Your task to perform on an android device: Open Chrome and go to settings Image 0: 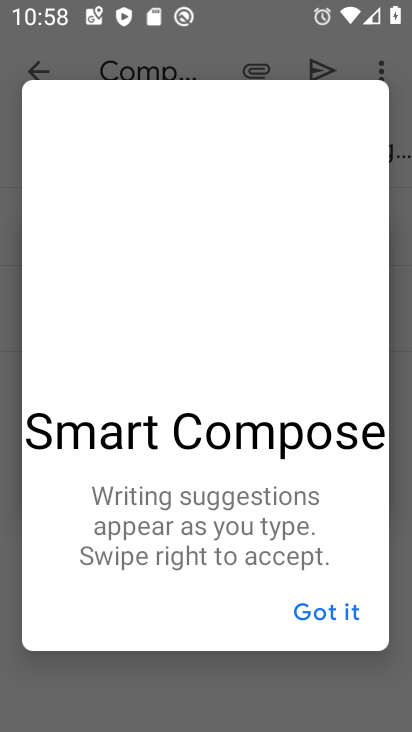
Step 0: press home button
Your task to perform on an android device: Open Chrome and go to settings Image 1: 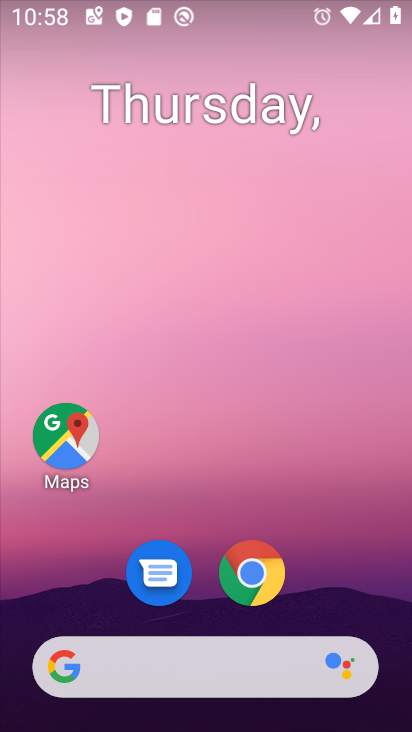
Step 1: click (245, 587)
Your task to perform on an android device: Open Chrome and go to settings Image 2: 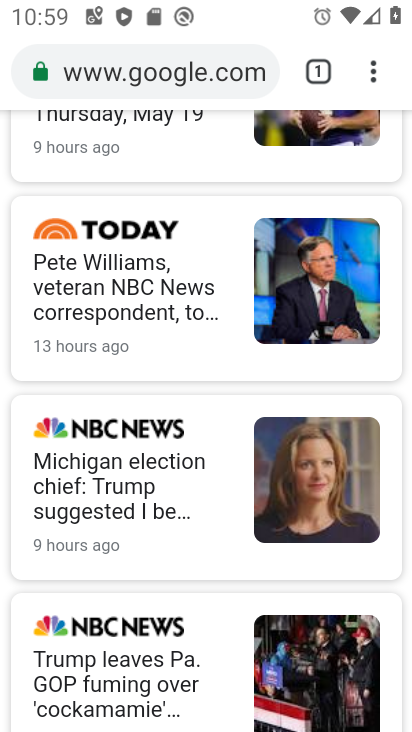
Step 2: click (373, 61)
Your task to perform on an android device: Open Chrome and go to settings Image 3: 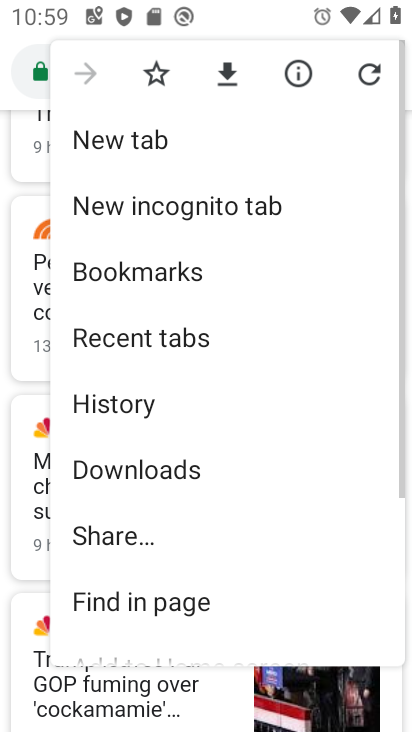
Step 3: drag from (154, 566) to (195, 128)
Your task to perform on an android device: Open Chrome and go to settings Image 4: 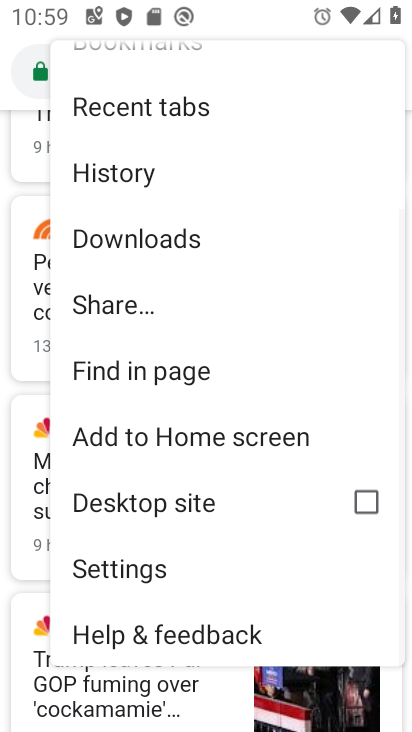
Step 4: click (140, 576)
Your task to perform on an android device: Open Chrome and go to settings Image 5: 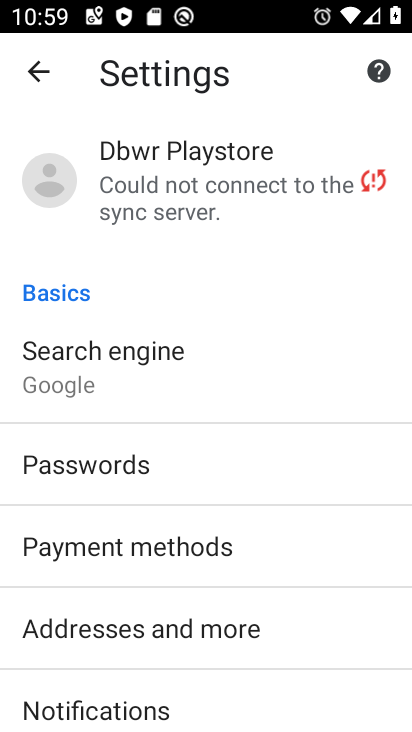
Step 5: task complete